Your task to perform on an android device: Search for the best way to get rid of a cold Image 0: 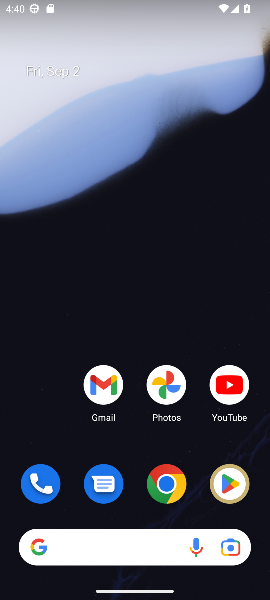
Step 0: click (167, 483)
Your task to perform on an android device: Search for the best way to get rid of a cold Image 1: 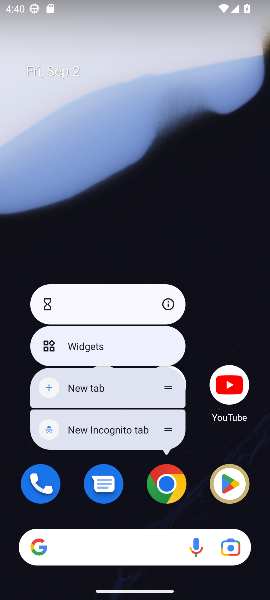
Step 1: click (167, 483)
Your task to perform on an android device: Search for the best way to get rid of a cold Image 2: 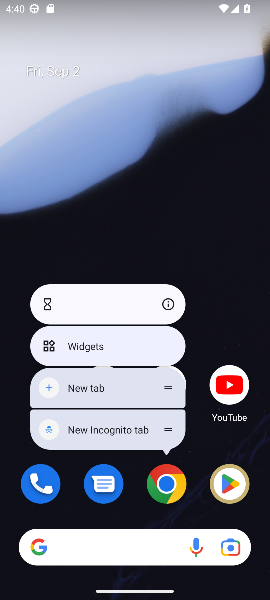
Step 2: click (167, 489)
Your task to perform on an android device: Search for the best way to get rid of a cold Image 3: 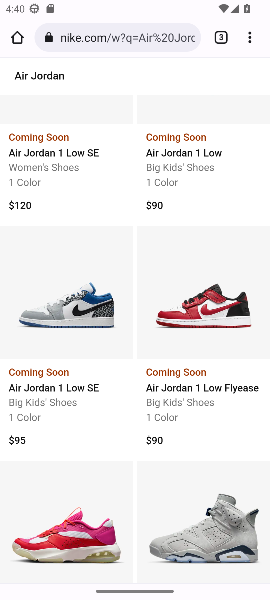
Step 3: click (144, 39)
Your task to perform on an android device: Search for the best way to get rid of a cold Image 4: 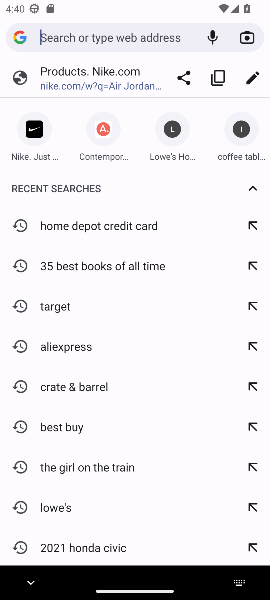
Step 4: type "best way to get rid of a cold"
Your task to perform on an android device: Search for the best way to get rid of a cold Image 5: 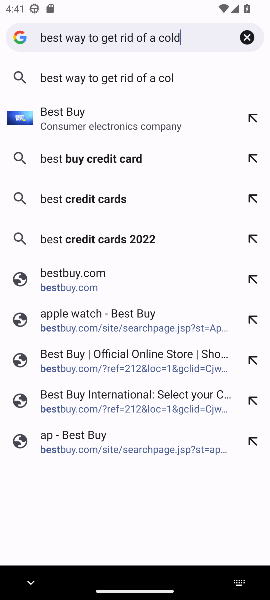
Step 5: press enter
Your task to perform on an android device: Search for the best way to get rid of a cold Image 6: 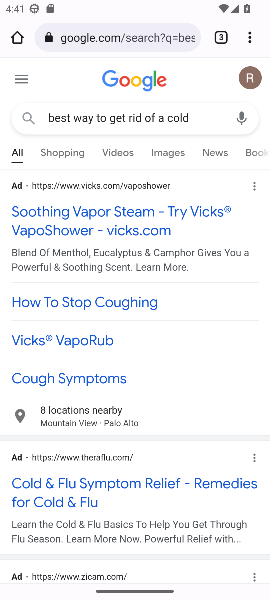
Step 6: drag from (141, 363) to (177, 262)
Your task to perform on an android device: Search for the best way to get rid of a cold Image 7: 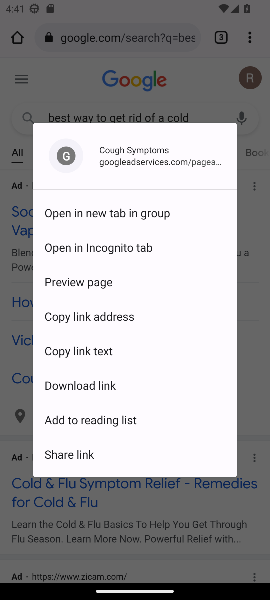
Step 7: click (254, 359)
Your task to perform on an android device: Search for the best way to get rid of a cold Image 8: 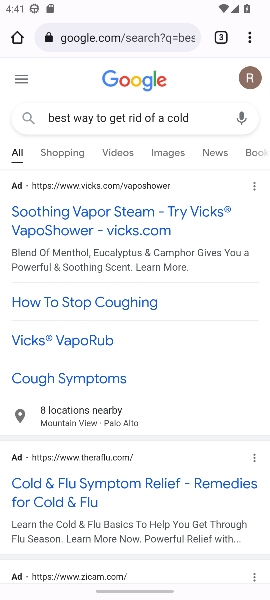
Step 8: drag from (136, 529) to (211, 274)
Your task to perform on an android device: Search for the best way to get rid of a cold Image 9: 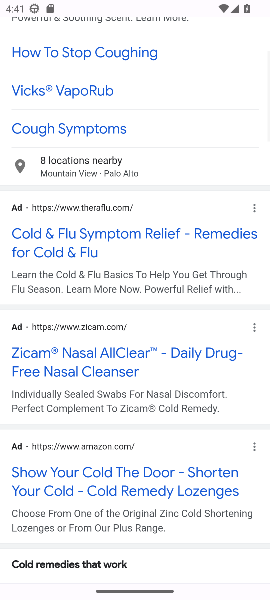
Step 9: drag from (122, 496) to (243, 125)
Your task to perform on an android device: Search for the best way to get rid of a cold Image 10: 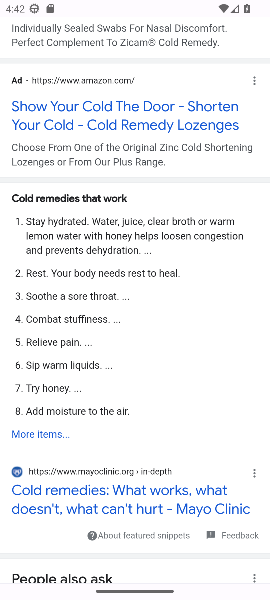
Step 10: drag from (182, 217) to (100, 496)
Your task to perform on an android device: Search for the best way to get rid of a cold Image 11: 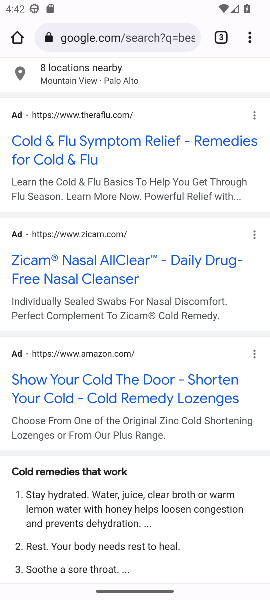
Step 11: click (183, 140)
Your task to perform on an android device: Search for the best way to get rid of a cold Image 12: 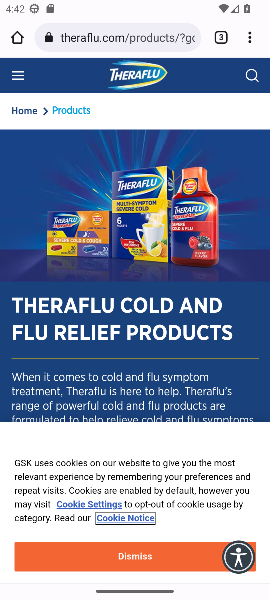
Step 12: drag from (156, 387) to (222, 156)
Your task to perform on an android device: Search for the best way to get rid of a cold Image 13: 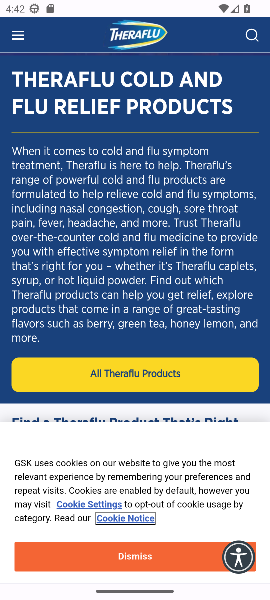
Step 13: click (129, 560)
Your task to perform on an android device: Search for the best way to get rid of a cold Image 14: 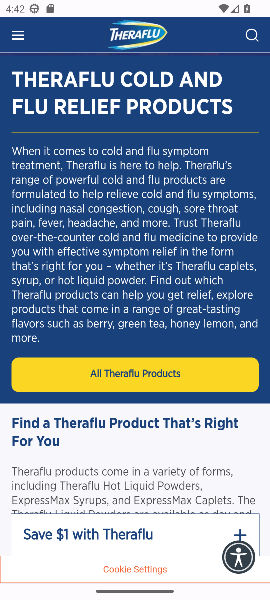
Step 14: task complete